Your task to perform on an android device: set the timer Image 0: 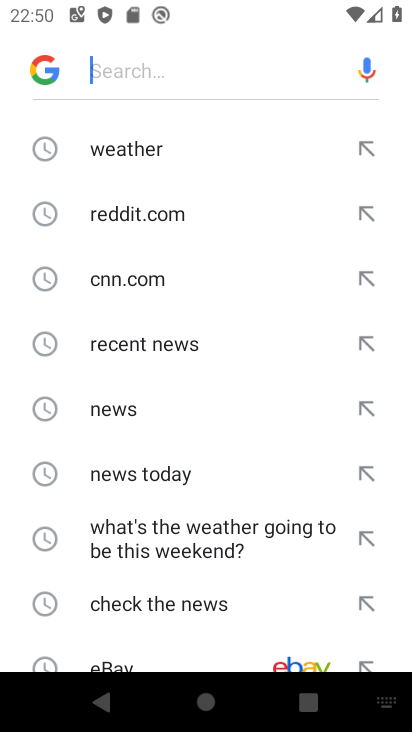
Step 0: press home button
Your task to perform on an android device: set the timer Image 1: 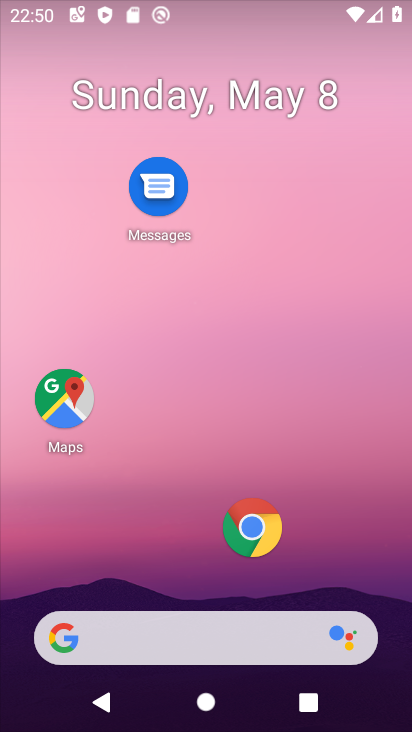
Step 1: drag from (166, 539) to (216, 73)
Your task to perform on an android device: set the timer Image 2: 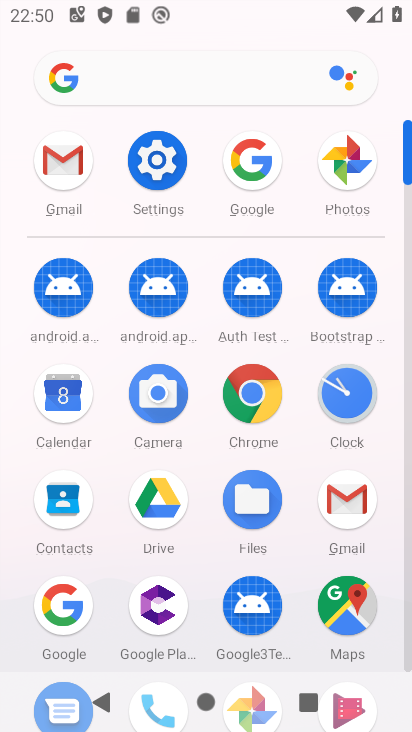
Step 2: click (325, 402)
Your task to perform on an android device: set the timer Image 3: 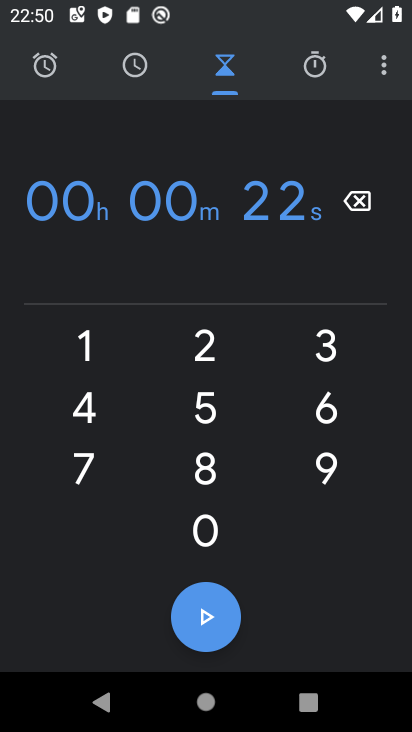
Step 3: click (191, 340)
Your task to perform on an android device: set the timer Image 4: 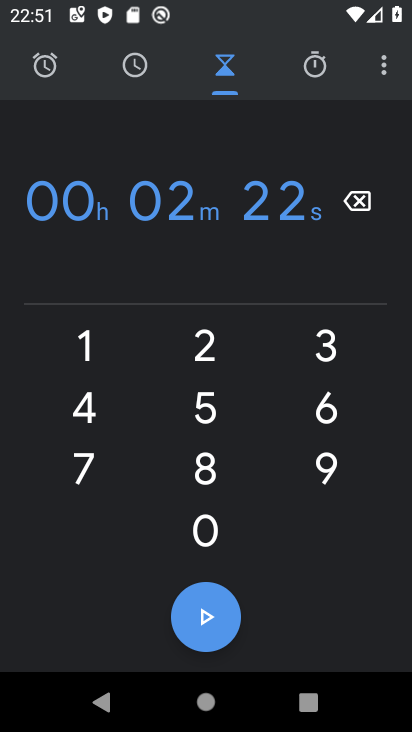
Step 4: task complete